Your task to perform on an android device: turn pop-ups on in chrome Image 0: 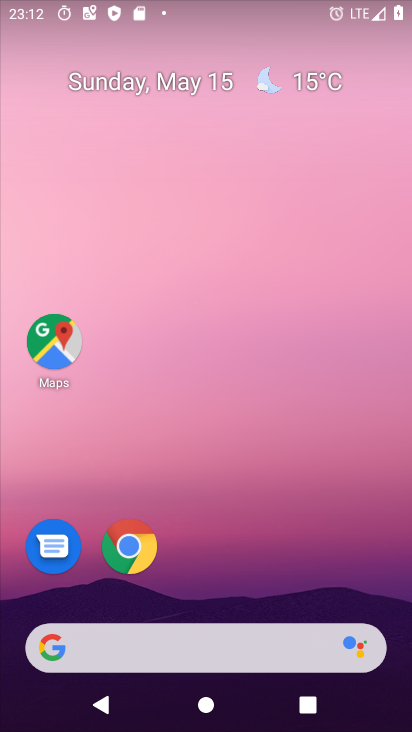
Step 0: drag from (278, 565) to (179, 72)
Your task to perform on an android device: turn pop-ups on in chrome Image 1: 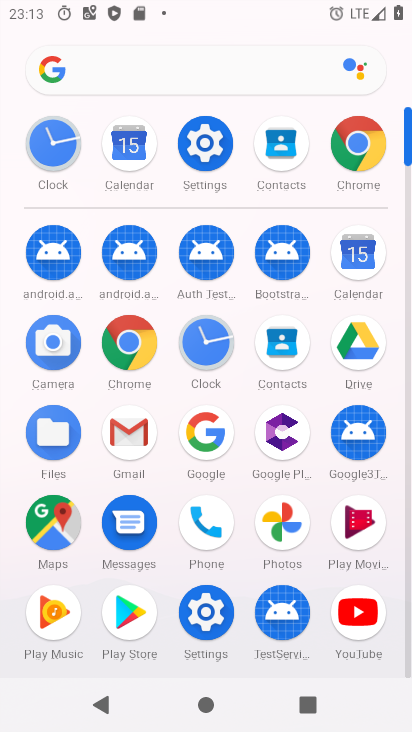
Step 1: click (384, 138)
Your task to perform on an android device: turn pop-ups on in chrome Image 2: 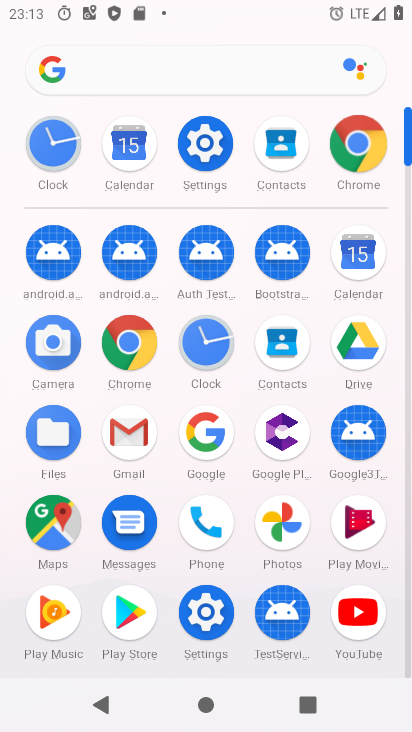
Step 2: click (368, 143)
Your task to perform on an android device: turn pop-ups on in chrome Image 3: 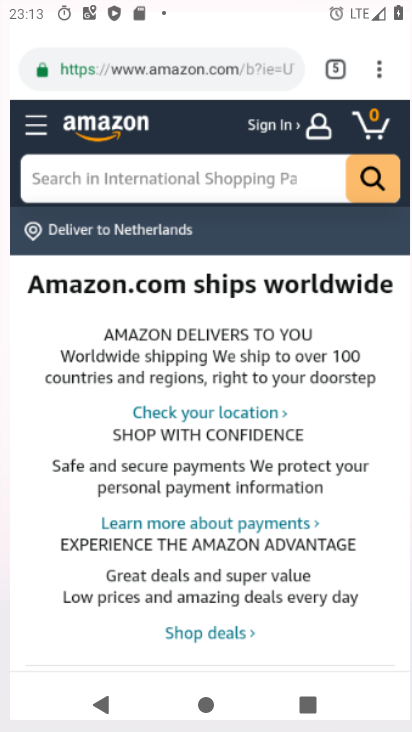
Step 3: click (366, 140)
Your task to perform on an android device: turn pop-ups on in chrome Image 4: 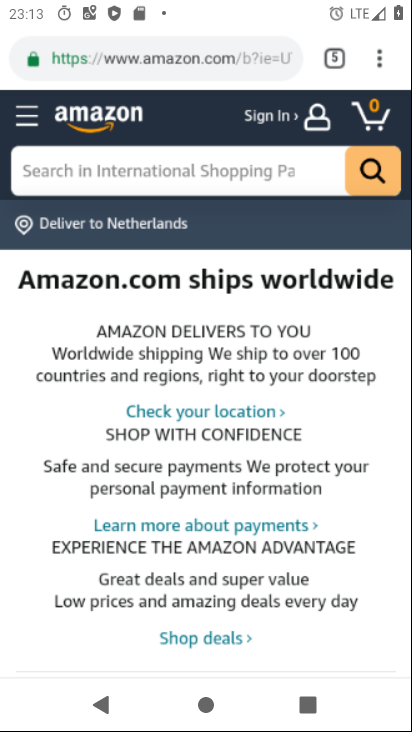
Step 4: click (366, 138)
Your task to perform on an android device: turn pop-ups on in chrome Image 5: 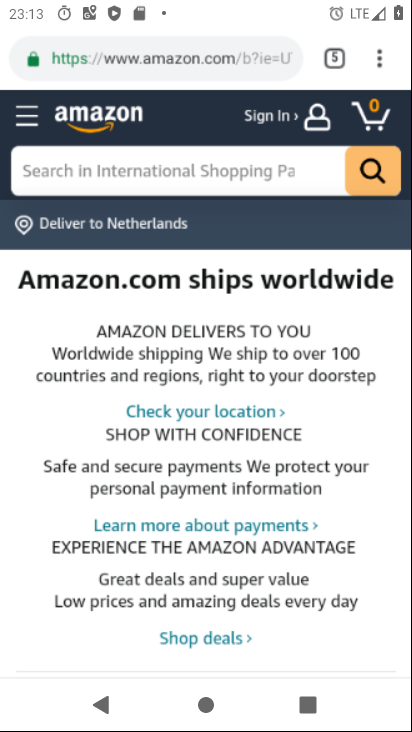
Step 5: click (365, 138)
Your task to perform on an android device: turn pop-ups on in chrome Image 6: 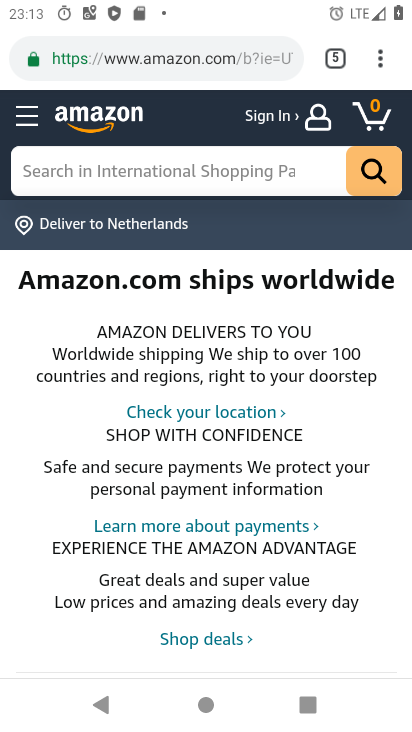
Step 6: click (381, 59)
Your task to perform on an android device: turn pop-ups on in chrome Image 7: 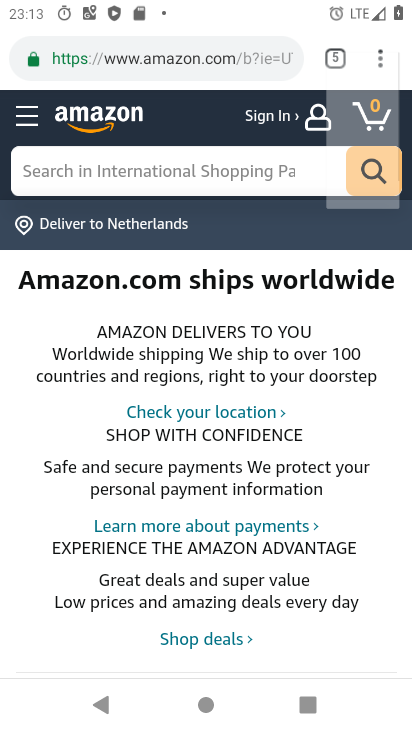
Step 7: click (381, 59)
Your task to perform on an android device: turn pop-ups on in chrome Image 8: 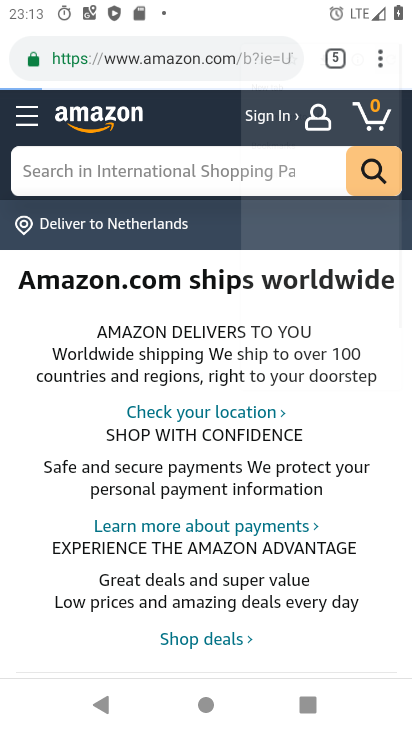
Step 8: click (381, 59)
Your task to perform on an android device: turn pop-ups on in chrome Image 9: 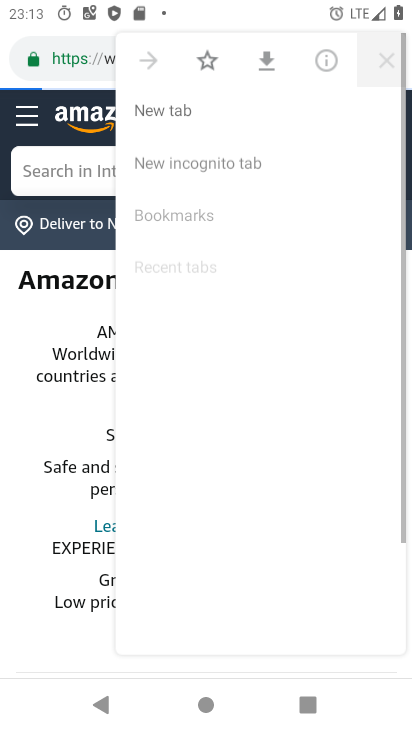
Step 9: click (379, 66)
Your task to perform on an android device: turn pop-ups on in chrome Image 10: 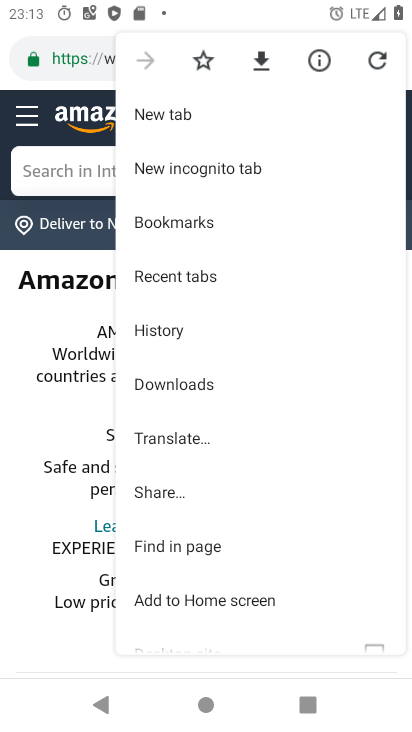
Step 10: drag from (196, 513) to (200, 86)
Your task to perform on an android device: turn pop-ups on in chrome Image 11: 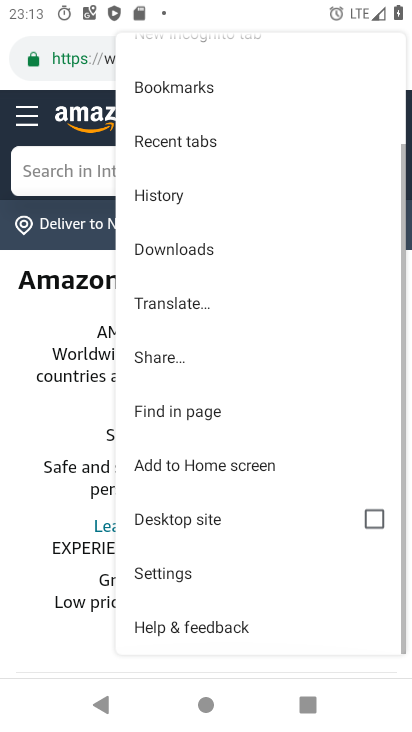
Step 11: drag from (271, 409) to (293, 19)
Your task to perform on an android device: turn pop-ups on in chrome Image 12: 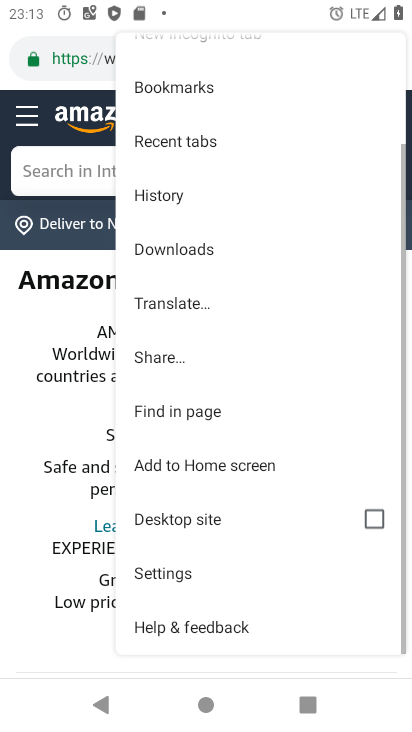
Step 12: drag from (249, 376) to (253, 78)
Your task to perform on an android device: turn pop-ups on in chrome Image 13: 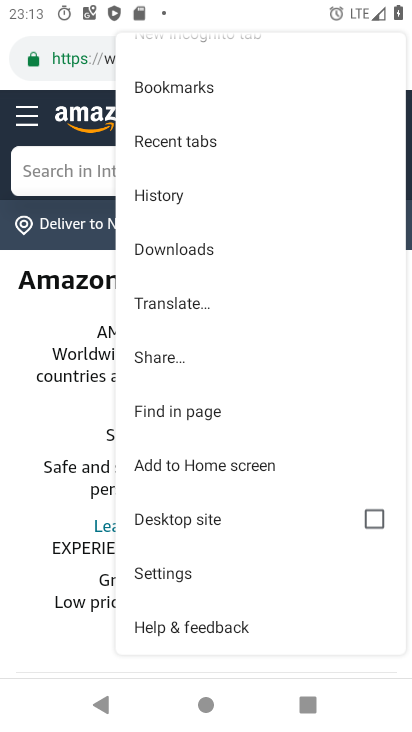
Step 13: drag from (220, 492) to (166, 177)
Your task to perform on an android device: turn pop-ups on in chrome Image 14: 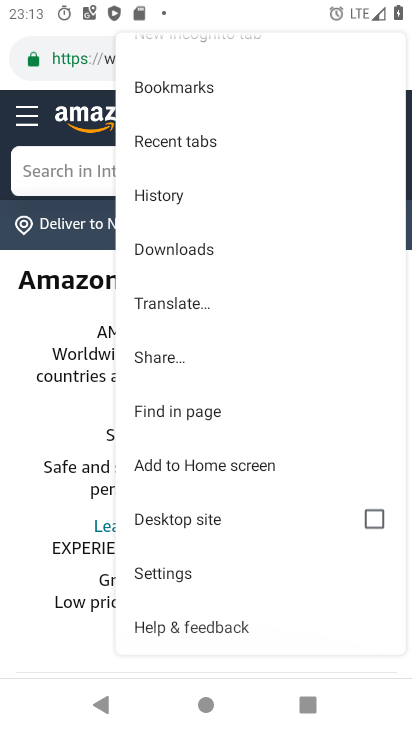
Step 14: drag from (210, 386) to (199, 96)
Your task to perform on an android device: turn pop-ups on in chrome Image 15: 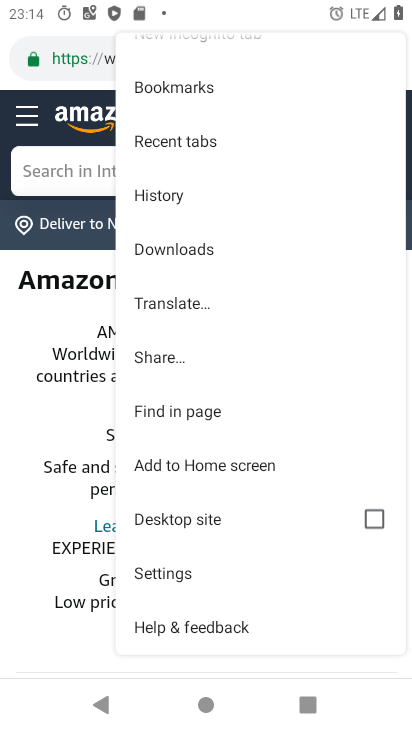
Step 15: drag from (186, 453) to (166, 193)
Your task to perform on an android device: turn pop-ups on in chrome Image 16: 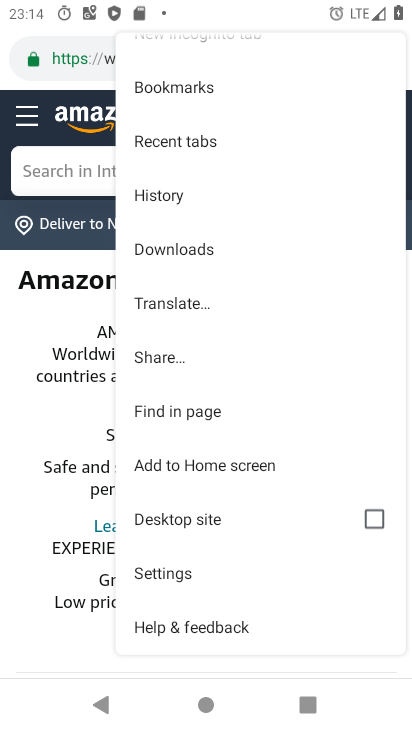
Step 16: drag from (204, 566) to (191, 183)
Your task to perform on an android device: turn pop-ups on in chrome Image 17: 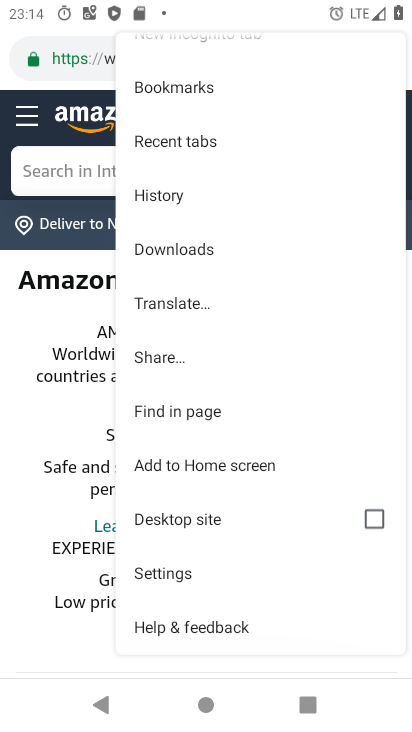
Step 17: drag from (213, 480) to (261, 44)
Your task to perform on an android device: turn pop-ups on in chrome Image 18: 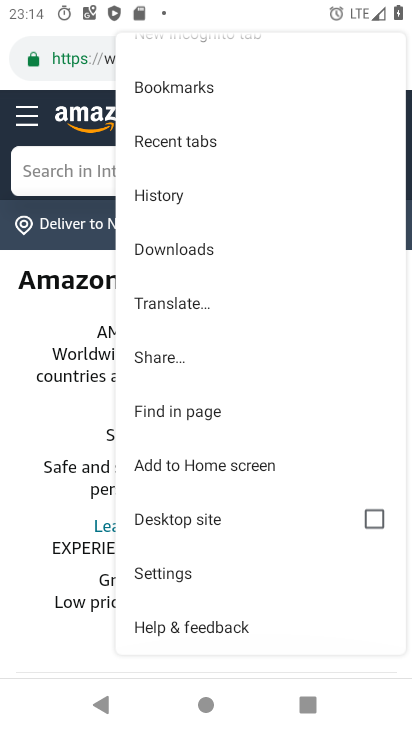
Step 18: drag from (224, 309) to (286, 151)
Your task to perform on an android device: turn pop-ups on in chrome Image 19: 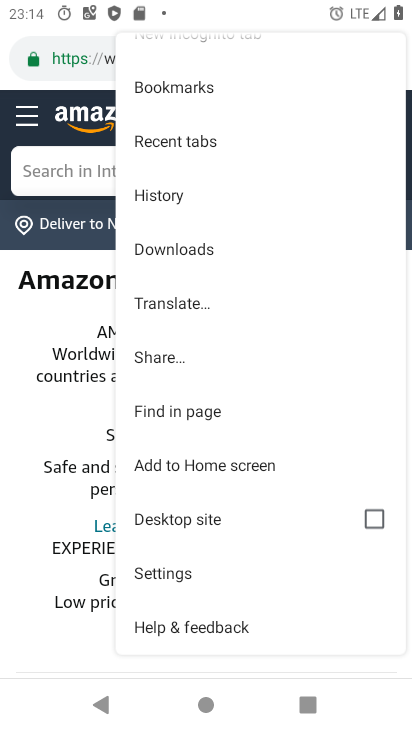
Step 19: click (158, 566)
Your task to perform on an android device: turn pop-ups on in chrome Image 20: 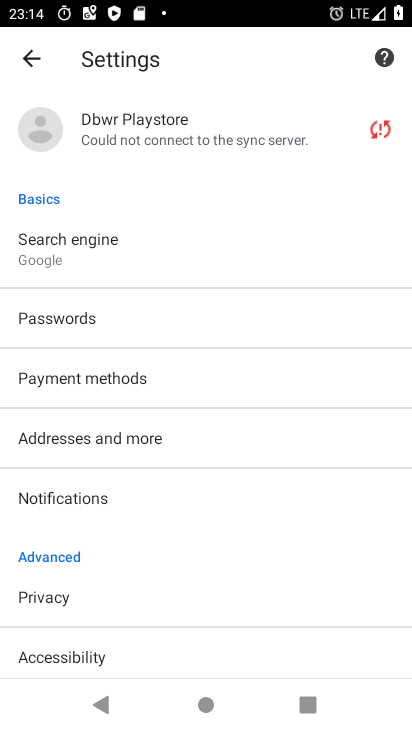
Step 20: drag from (190, 526) to (231, 168)
Your task to perform on an android device: turn pop-ups on in chrome Image 21: 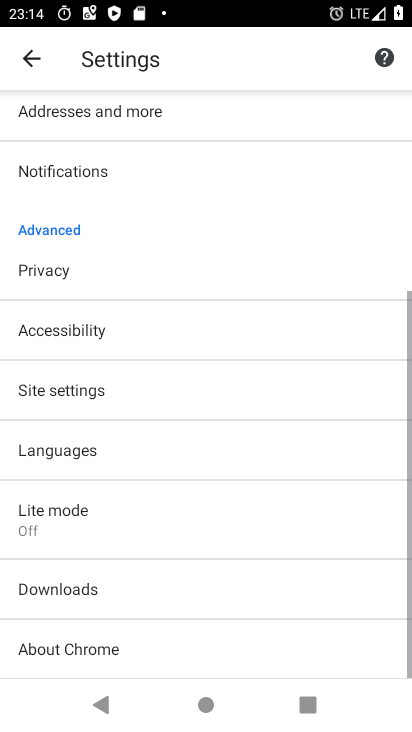
Step 21: drag from (199, 443) to (210, 0)
Your task to perform on an android device: turn pop-ups on in chrome Image 22: 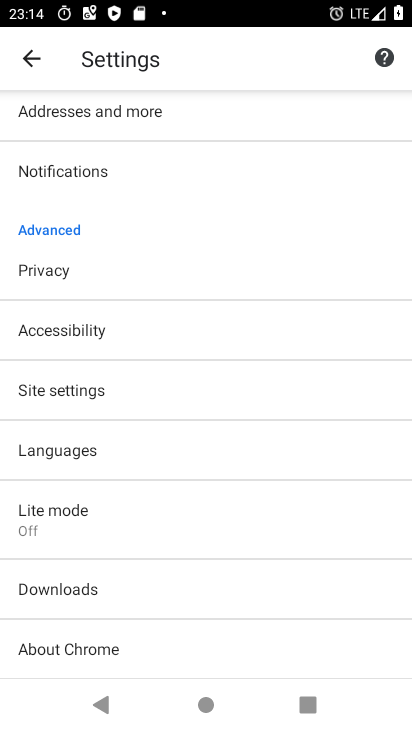
Step 22: drag from (159, 435) to (202, 110)
Your task to perform on an android device: turn pop-ups on in chrome Image 23: 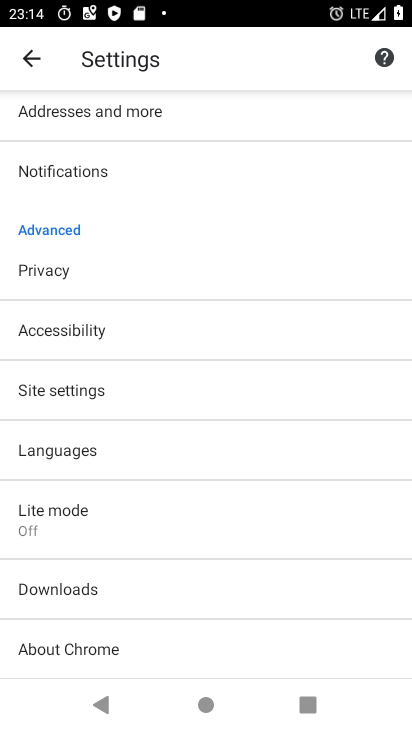
Step 23: click (45, 386)
Your task to perform on an android device: turn pop-ups on in chrome Image 24: 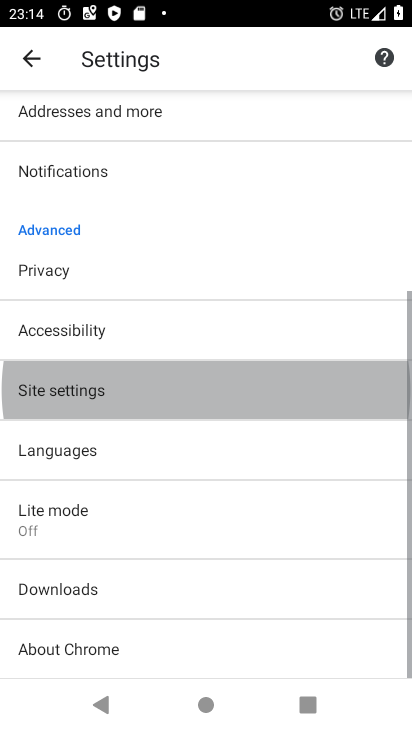
Step 24: click (48, 389)
Your task to perform on an android device: turn pop-ups on in chrome Image 25: 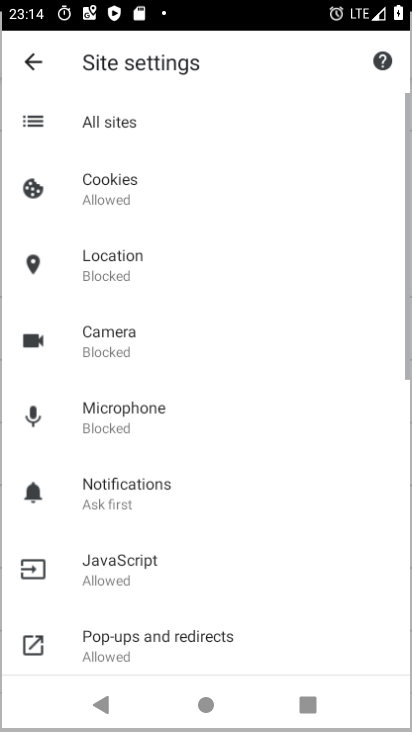
Step 25: click (48, 389)
Your task to perform on an android device: turn pop-ups on in chrome Image 26: 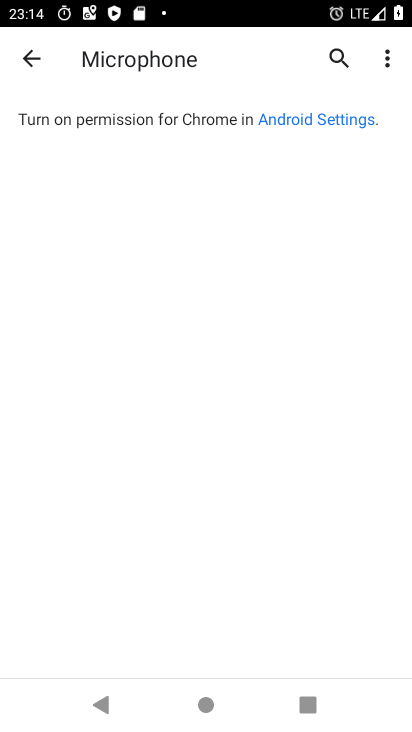
Step 26: click (37, 62)
Your task to perform on an android device: turn pop-ups on in chrome Image 27: 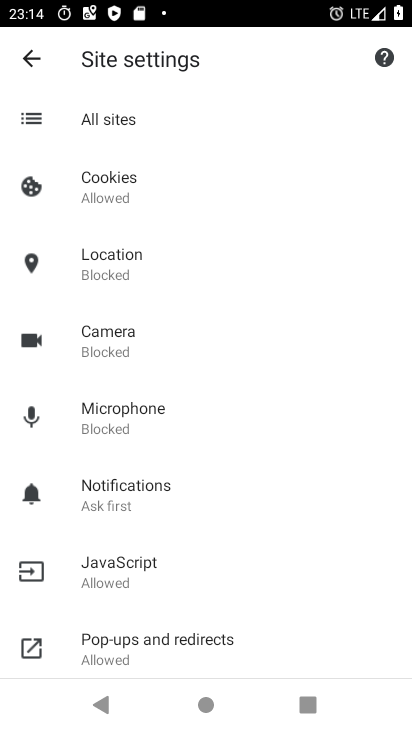
Step 27: click (125, 641)
Your task to perform on an android device: turn pop-ups on in chrome Image 28: 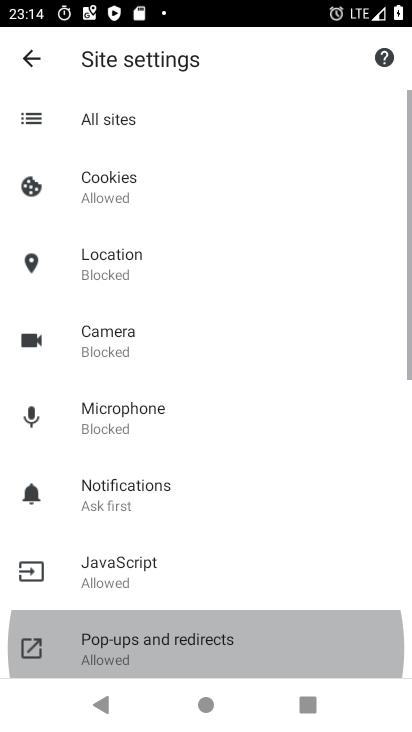
Step 28: click (124, 642)
Your task to perform on an android device: turn pop-ups on in chrome Image 29: 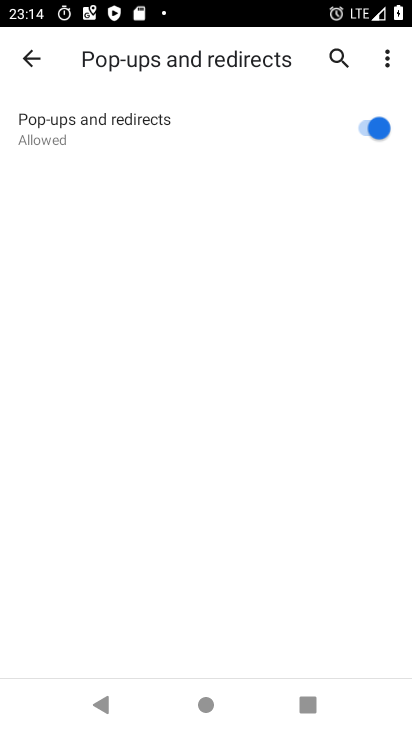
Step 29: click (123, 644)
Your task to perform on an android device: turn pop-ups on in chrome Image 30: 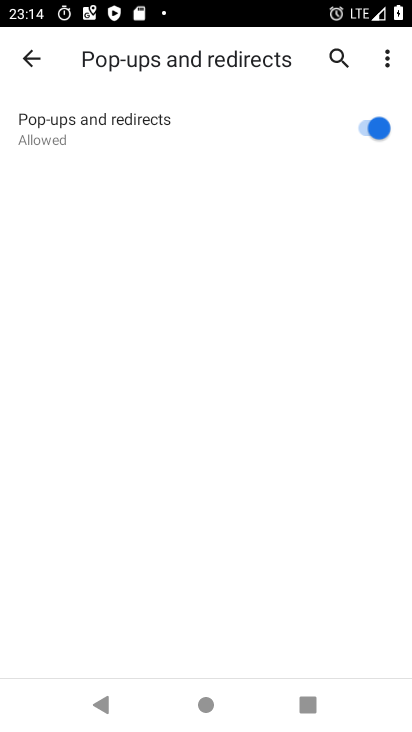
Step 30: task complete